Your task to perform on an android device: What's the weather today? Image 0: 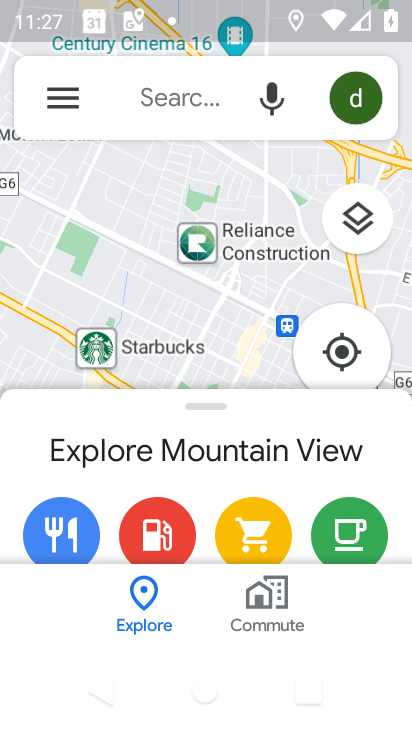
Step 0: press home button
Your task to perform on an android device: What's the weather today? Image 1: 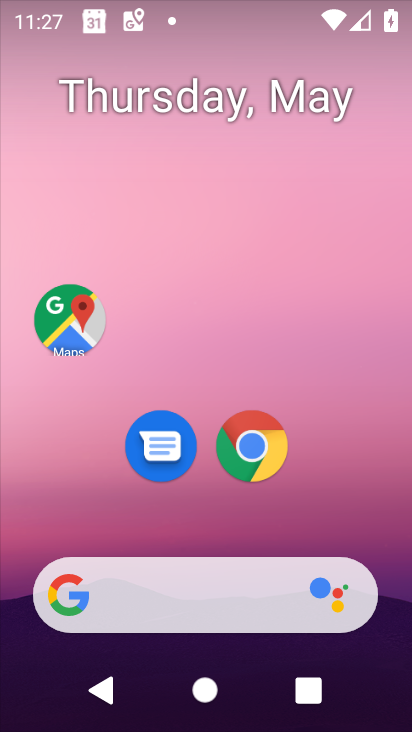
Step 1: drag from (266, 428) to (313, 5)
Your task to perform on an android device: What's the weather today? Image 2: 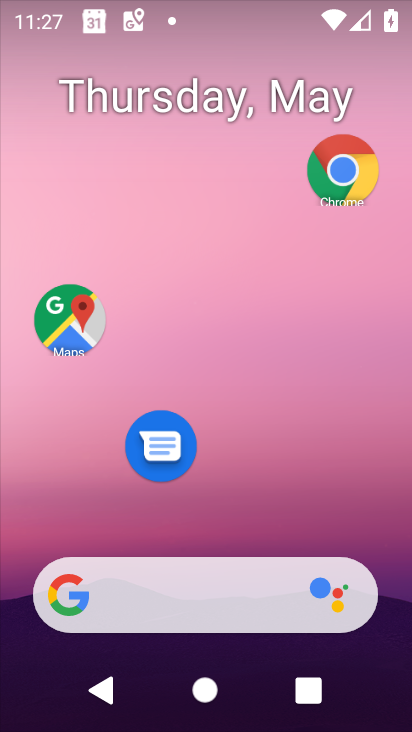
Step 2: drag from (318, 528) to (265, 25)
Your task to perform on an android device: What's the weather today? Image 3: 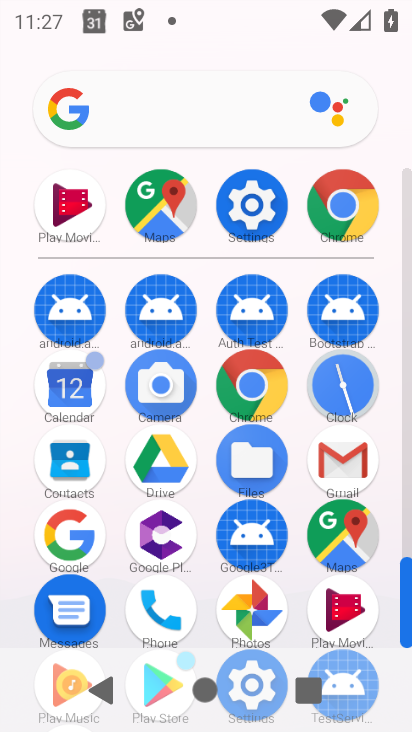
Step 3: click (247, 391)
Your task to perform on an android device: What's the weather today? Image 4: 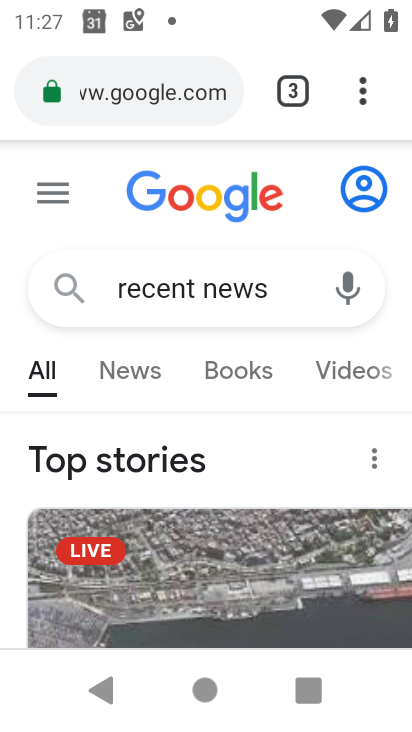
Step 4: click (187, 109)
Your task to perform on an android device: What's the weather today? Image 5: 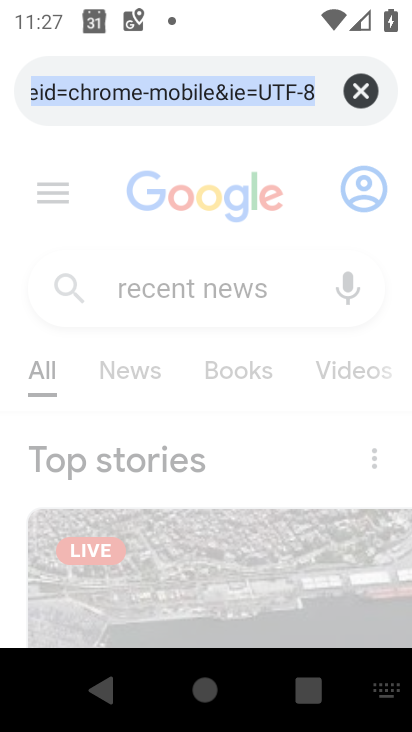
Step 5: click (351, 92)
Your task to perform on an android device: What's the weather today? Image 6: 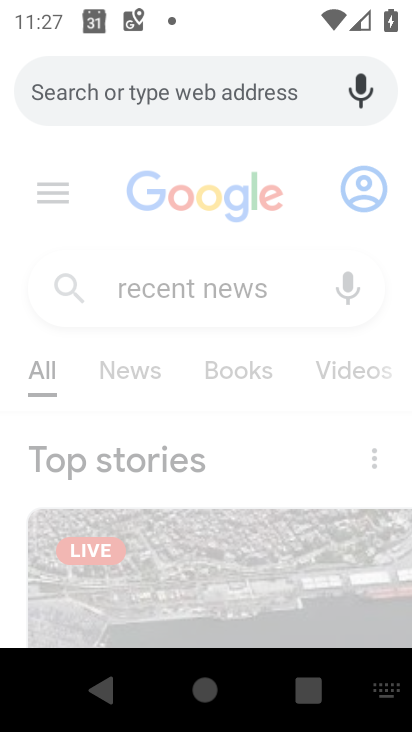
Step 6: type "weather today"
Your task to perform on an android device: What's the weather today? Image 7: 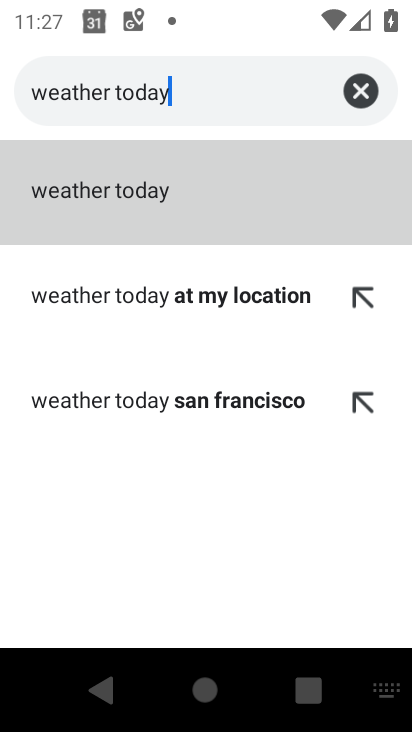
Step 7: click (232, 190)
Your task to perform on an android device: What's the weather today? Image 8: 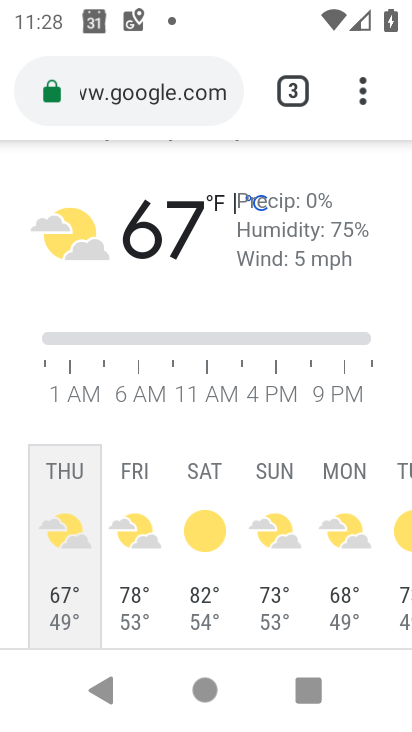
Step 8: task complete